Your task to perform on an android device: Go to Android settings Image 0: 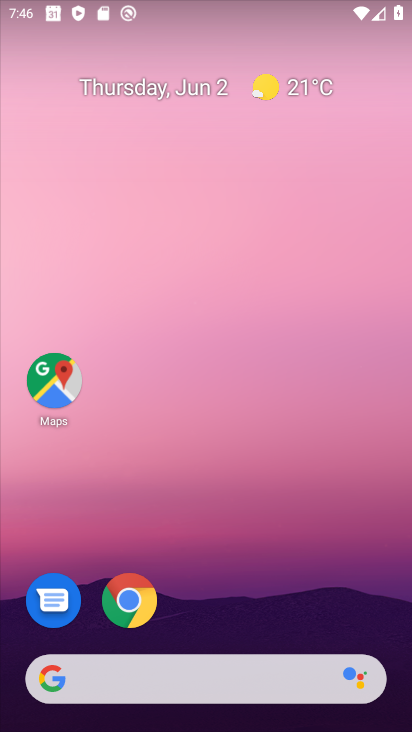
Step 0: drag from (170, 646) to (110, 111)
Your task to perform on an android device: Go to Android settings Image 1: 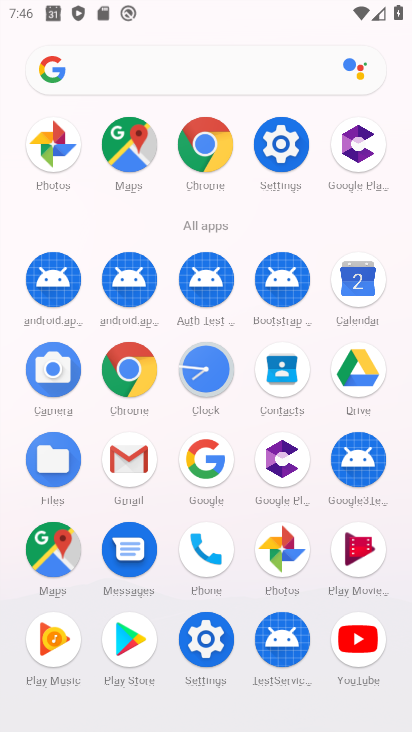
Step 1: click (276, 134)
Your task to perform on an android device: Go to Android settings Image 2: 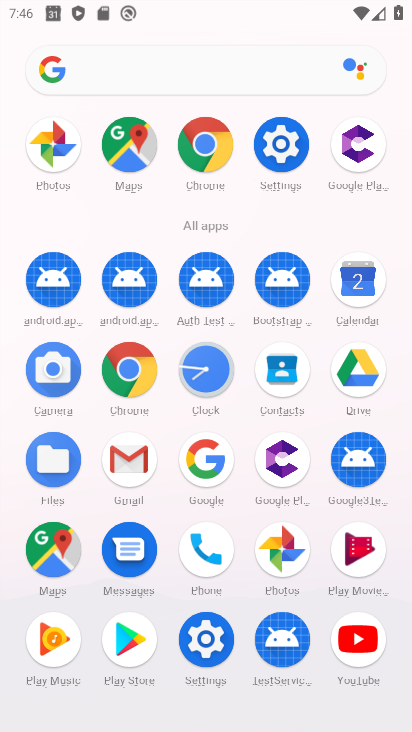
Step 2: click (277, 148)
Your task to perform on an android device: Go to Android settings Image 3: 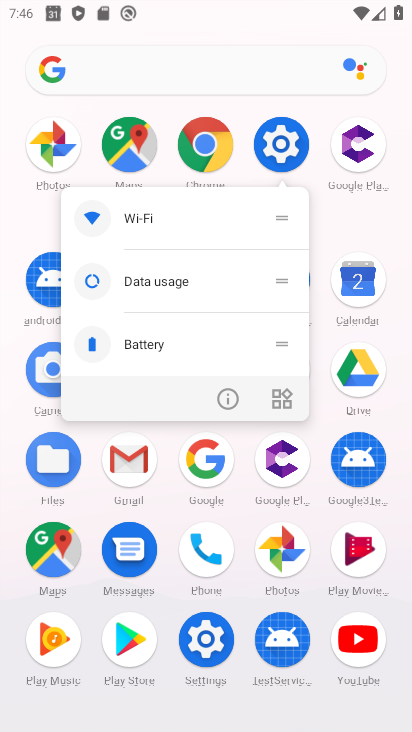
Step 3: click (236, 399)
Your task to perform on an android device: Go to Android settings Image 4: 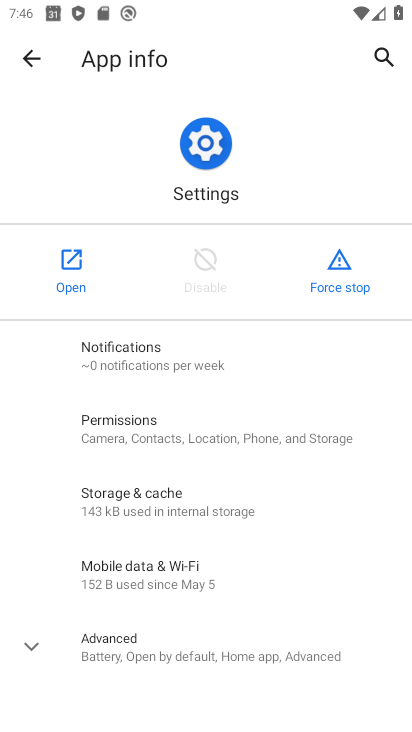
Step 4: click (55, 257)
Your task to perform on an android device: Go to Android settings Image 5: 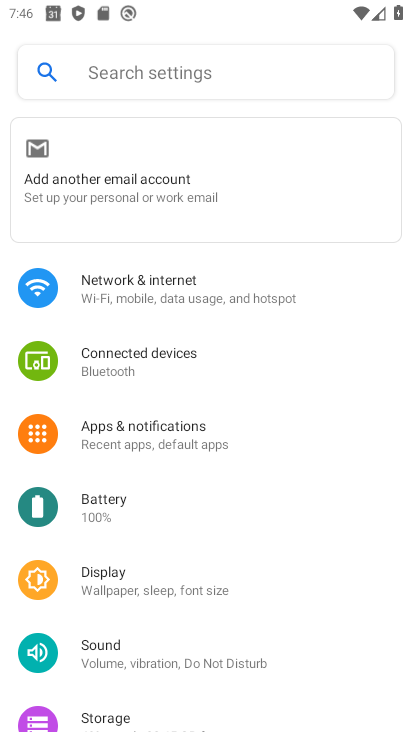
Step 5: drag from (192, 597) to (364, 24)
Your task to perform on an android device: Go to Android settings Image 6: 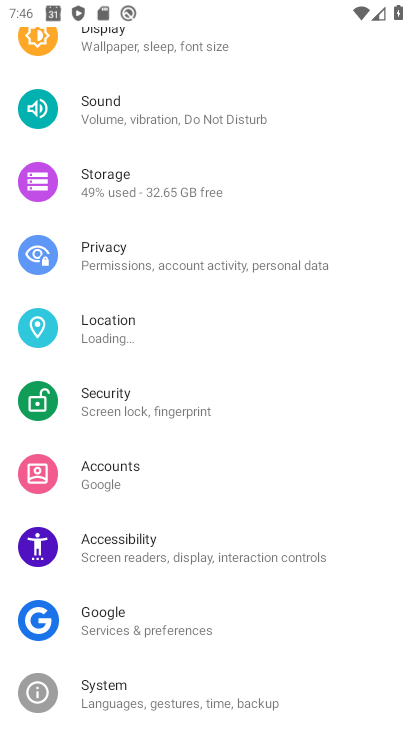
Step 6: drag from (209, 613) to (398, 0)
Your task to perform on an android device: Go to Android settings Image 7: 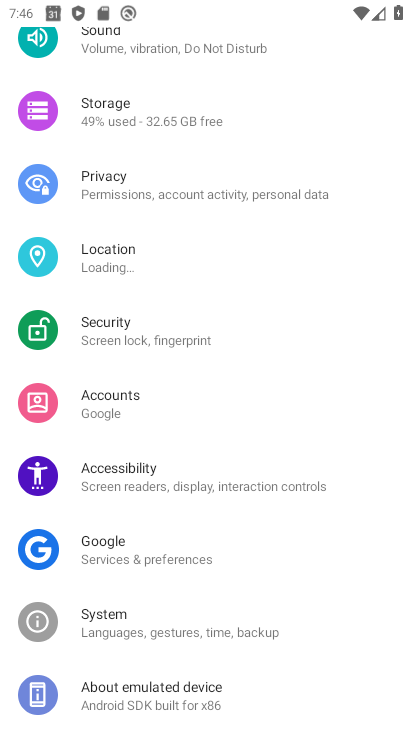
Step 7: click (142, 695)
Your task to perform on an android device: Go to Android settings Image 8: 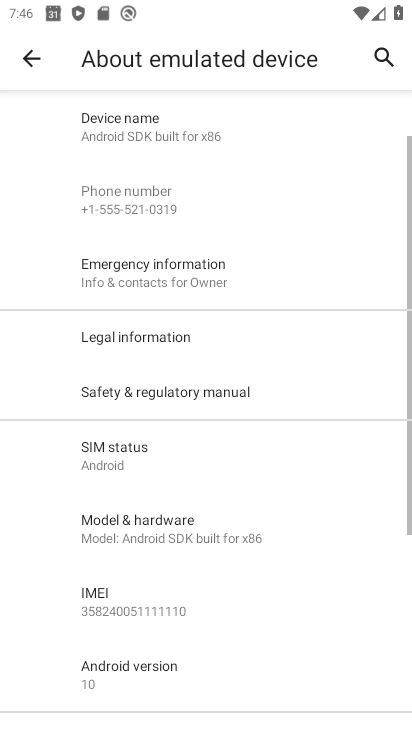
Step 8: click (163, 662)
Your task to perform on an android device: Go to Android settings Image 9: 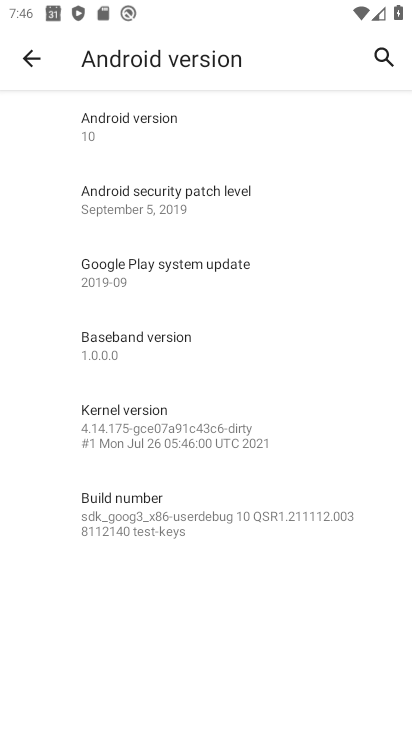
Step 9: task complete